Your task to perform on an android device: open a bookmark in the chrome app Image 0: 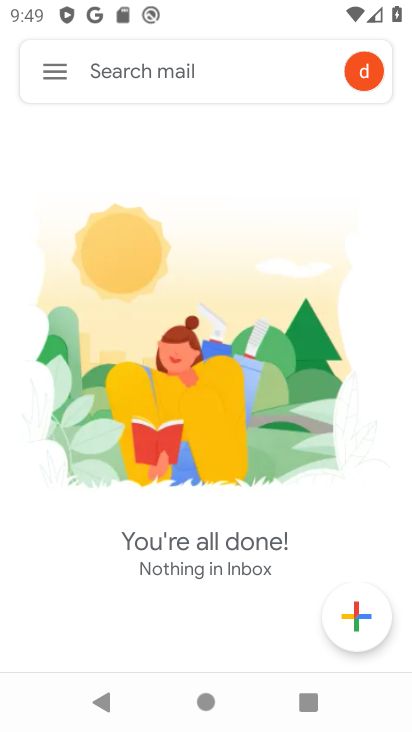
Step 0: press home button
Your task to perform on an android device: open a bookmark in the chrome app Image 1: 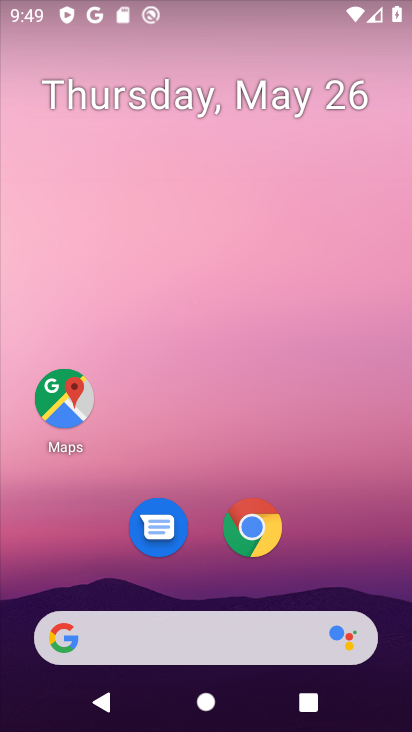
Step 1: click (261, 519)
Your task to perform on an android device: open a bookmark in the chrome app Image 2: 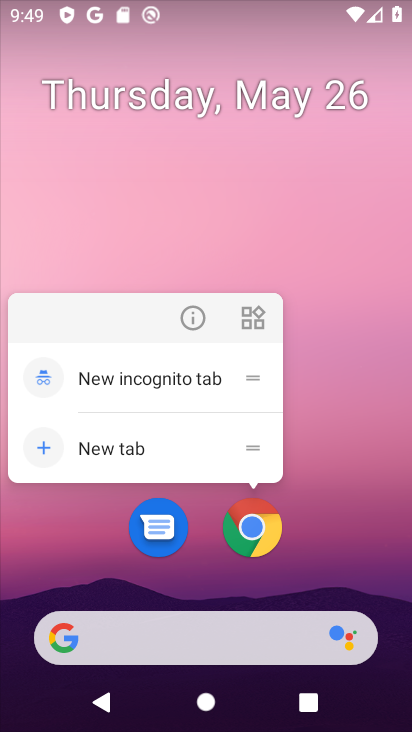
Step 2: click (262, 524)
Your task to perform on an android device: open a bookmark in the chrome app Image 3: 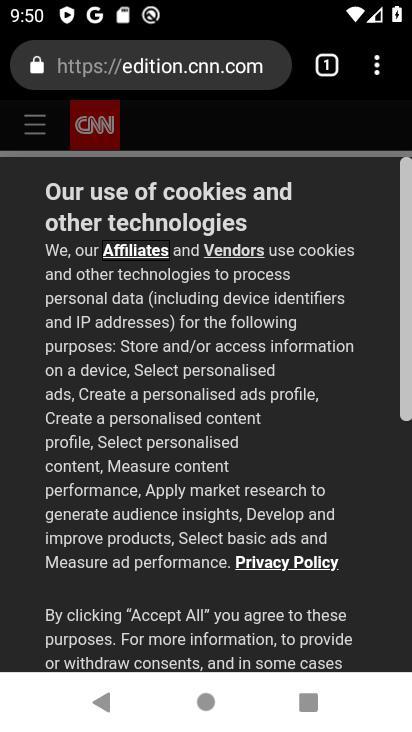
Step 3: click (385, 74)
Your task to perform on an android device: open a bookmark in the chrome app Image 4: 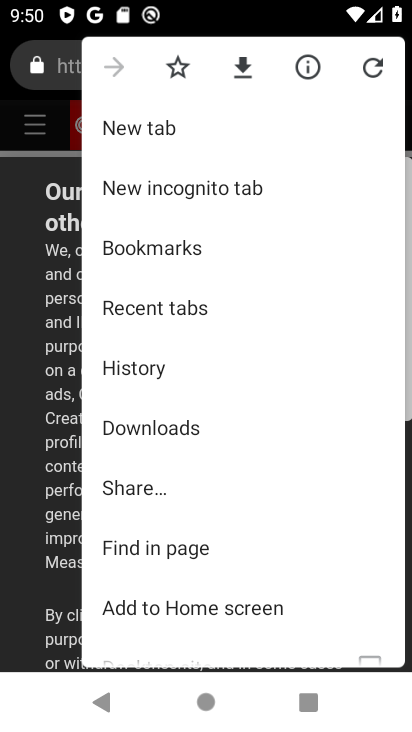
Step 4: click (217, 234)
Your task to perform on an android device: open a bookmark in the chrome app Image 5: 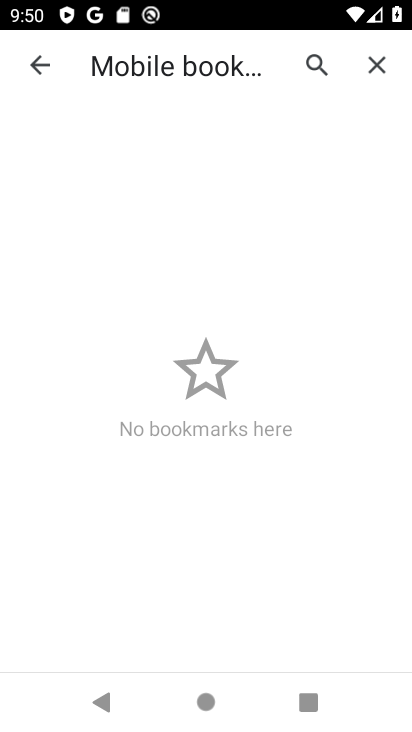
Step 5: task complete